Your task to perform on an android device: Go to Wikipedia Image 0: 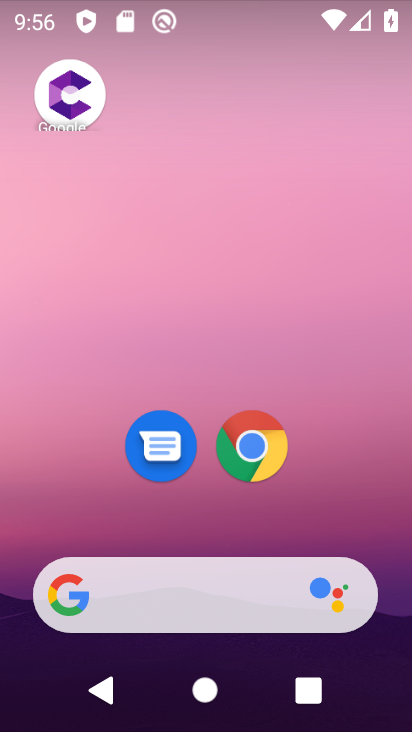
Step 0: click (250, 434)
Your task to perform on an android device: Go to Wikipedia Image 1: 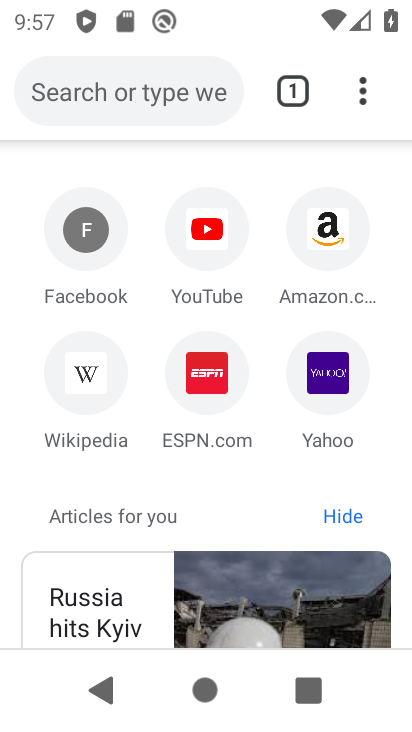
Step 1: click (94, 354)
Your task to perform on an android device: Go to Wikipedia Image 2: 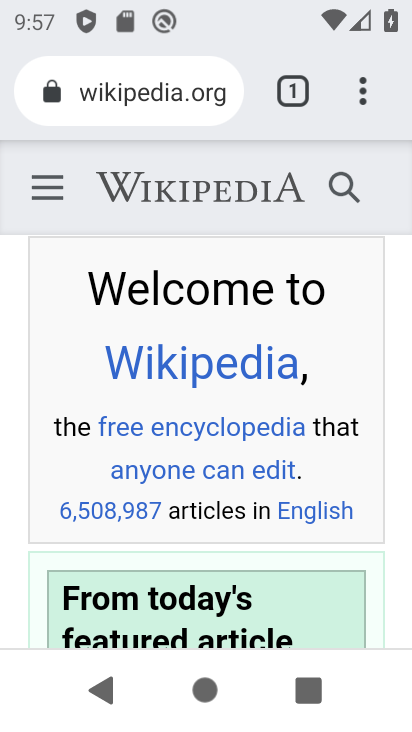
Step 2: task complete